Your task to perform on an android device: Show me recent news Image 0: 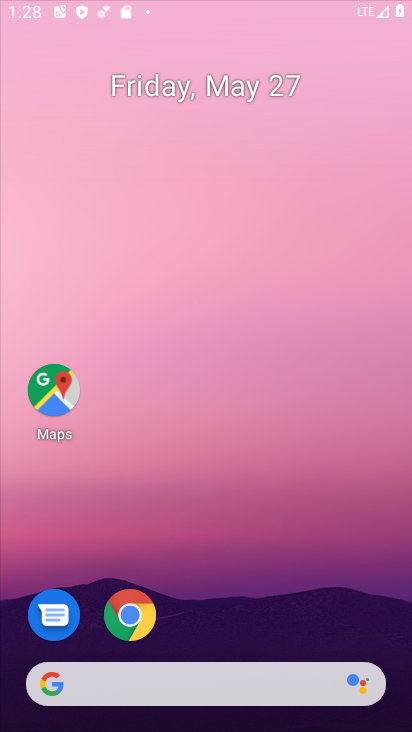
Step 0: click (196, 261)
Your task to perform on an android device: Show me recent news Image 1: 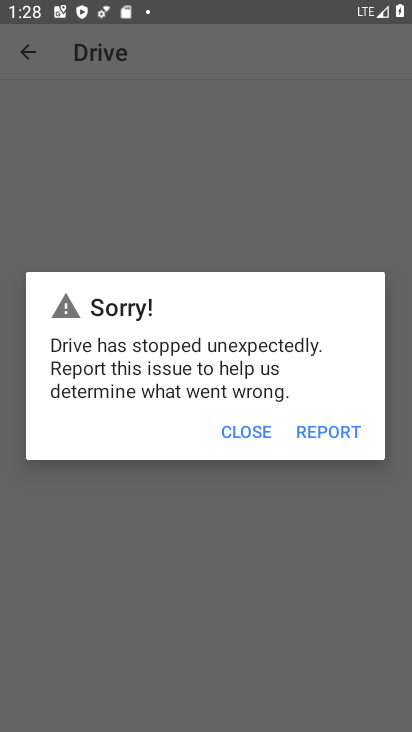
Step 1: press home button
Your task to perform on an android device: Show me recent news Image 2: 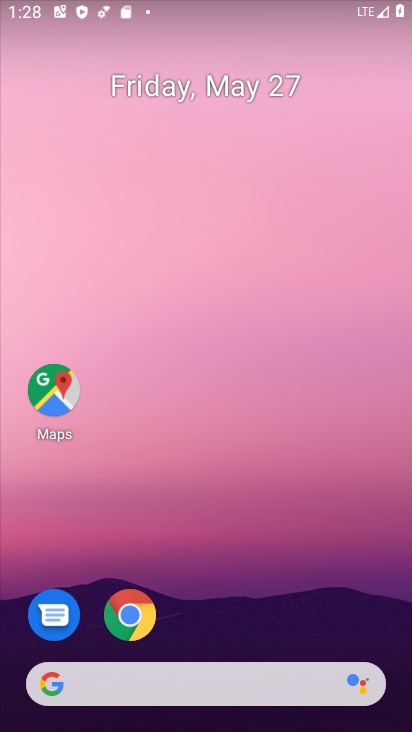
Step 2: drag from (166, 683) to (169, 265)
Your task to perform on an android device: Show me recent news Image 3: 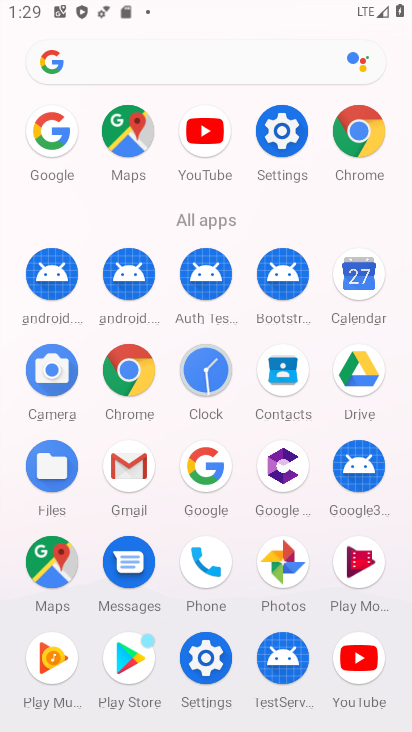
Step 3: click (53, 131)
Your task to perform on an android device: Show me recent news Image 4: 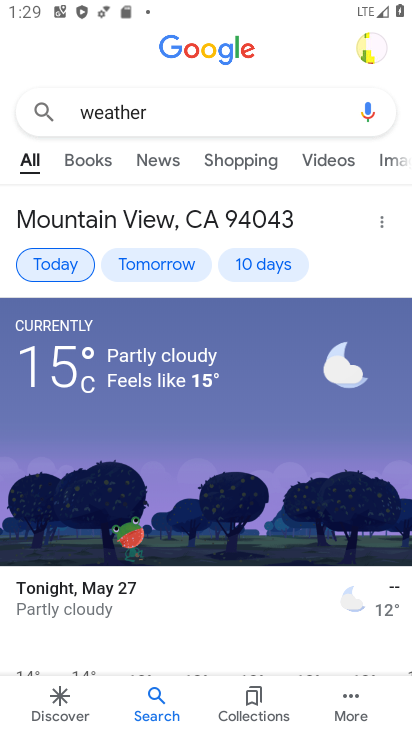
Step 4: click (194, 105)
Your task to perform on an android device: Show me recent news Image 5: 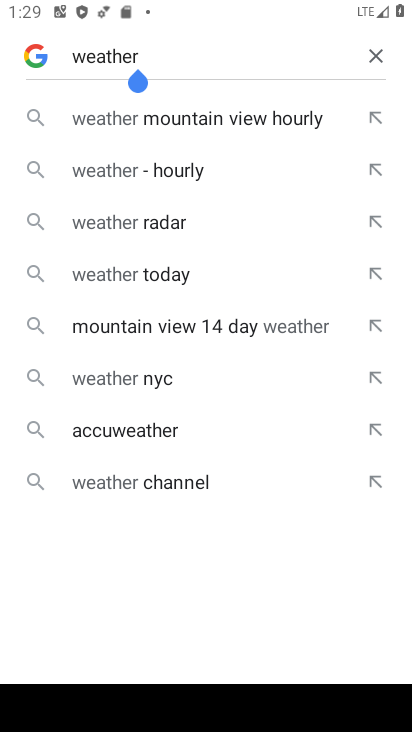
Step 5: click (275, 60)
Your task to perform on an android device: Show me recent news Image 6: 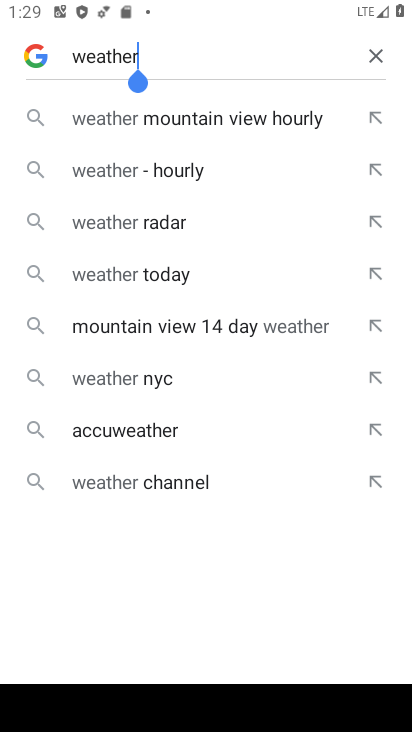
Step 6: click (377, 57)
Your task to perform on an android device: Show me recent news Image 7: 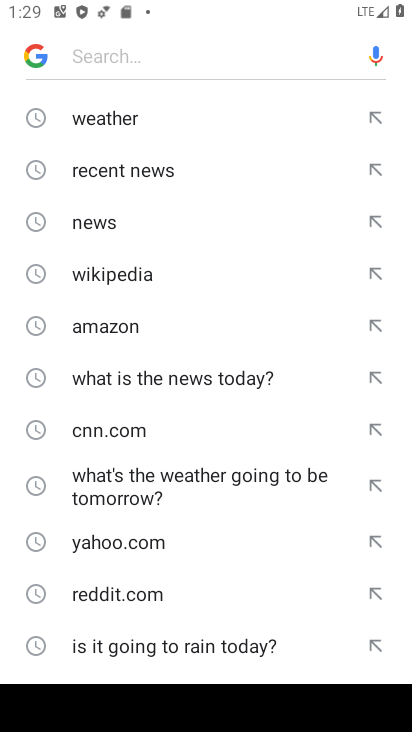
Step 7: click (124, 171)
Your task to perform on an android device: Show me recent news Image 8: 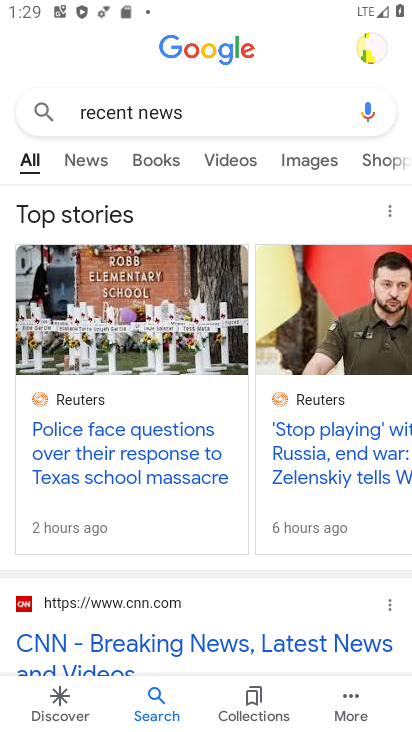
Step 8: task complete